Your task to perform on an android device: turn off improve location accuracy Image 0: 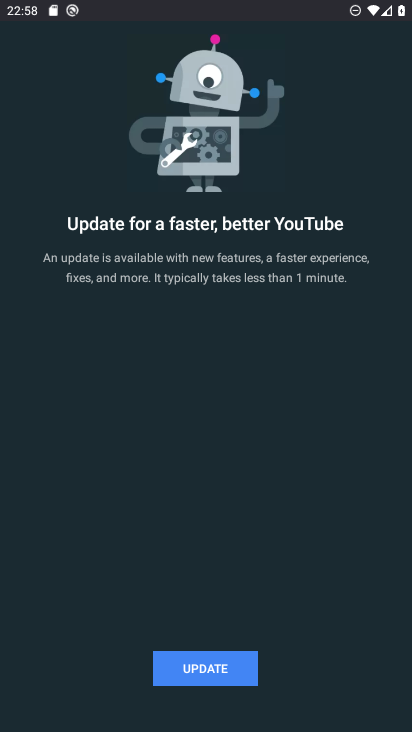
Step 0: press back button
Your task to perform on an android device: turn off improve location accuracy Image 1: 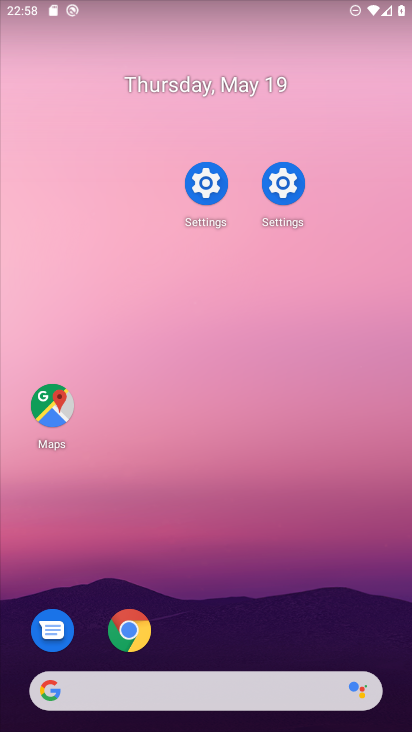
Step 1: drag from (246, 589) to (94, 78)
Your task to perform on an android device: turn off improve location accuracy Image 2: 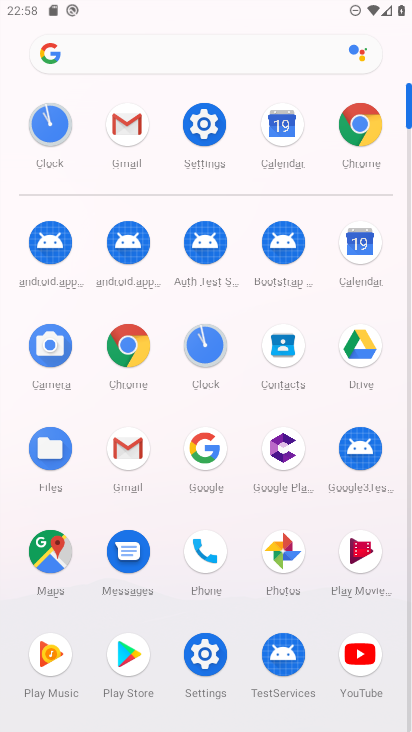
Step 2: click (205, 141)
Your task to perform on an android device: turn off improve location accuracy Image 3: 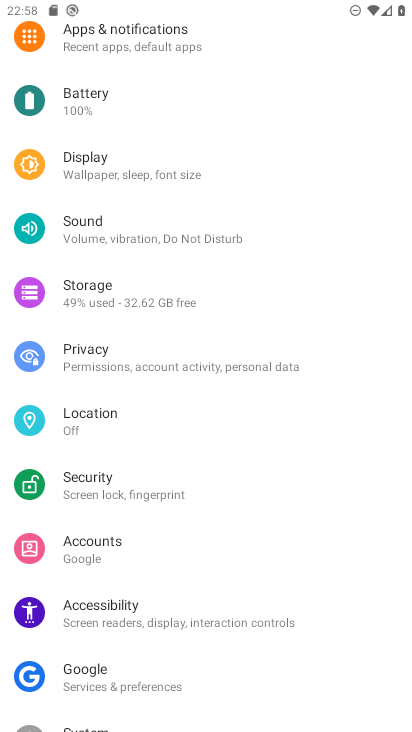
Step 3: click (112, 415)
Your task to perform on an android device: turn off improve location accuracy Image 4: 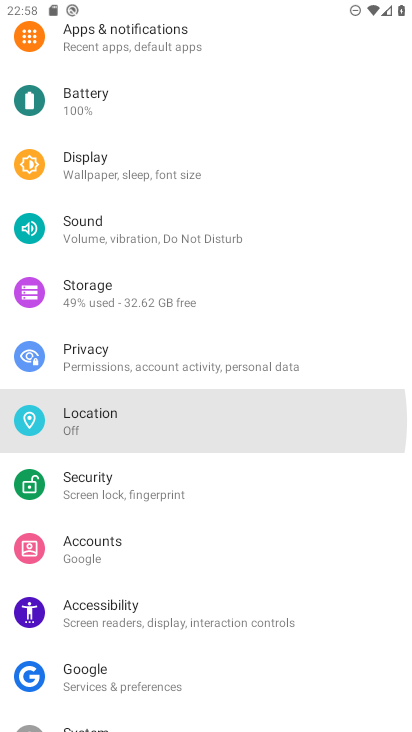
Step 4: click (109, 413)
Your task to perform on an android device: turn off improve location accuracy Image 5: 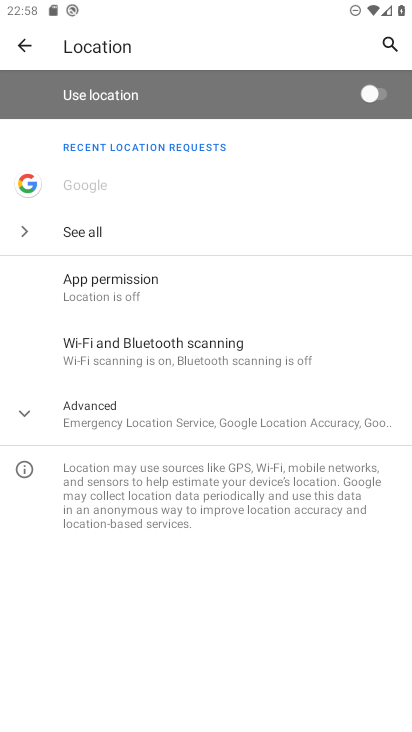
Step 5: click (20, 39)
Your task to perform on an android device: turn off improve location accuracy Image 6: 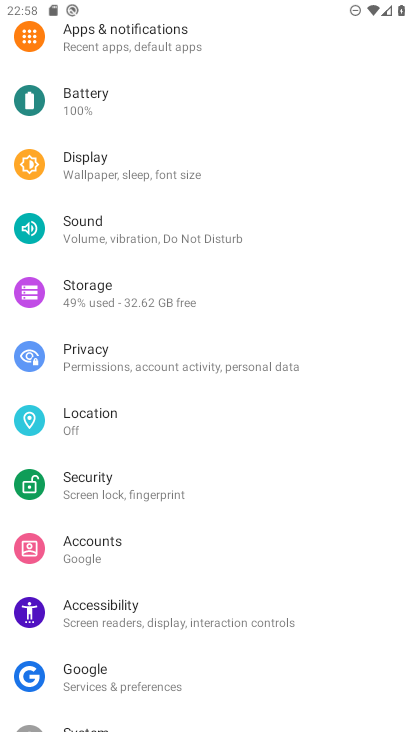
Step 6: press home button
Your task to perform on an android device: turn off improve location accuracy Image 7: 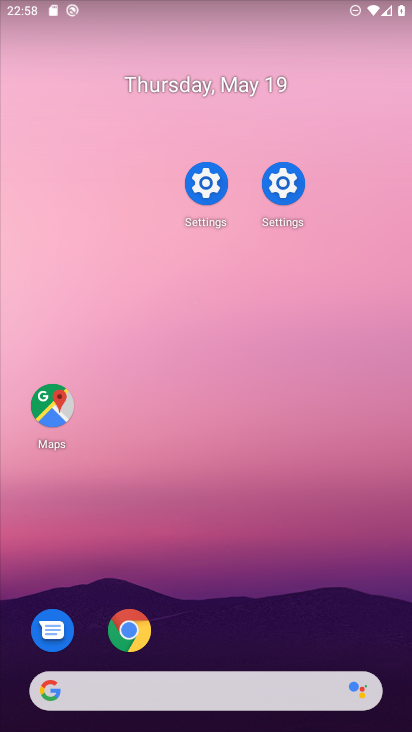
Step 7: drag from (294, 660) to (220, 91)
Your task to perform on an android device: turn off improve location accuracy Image 8: 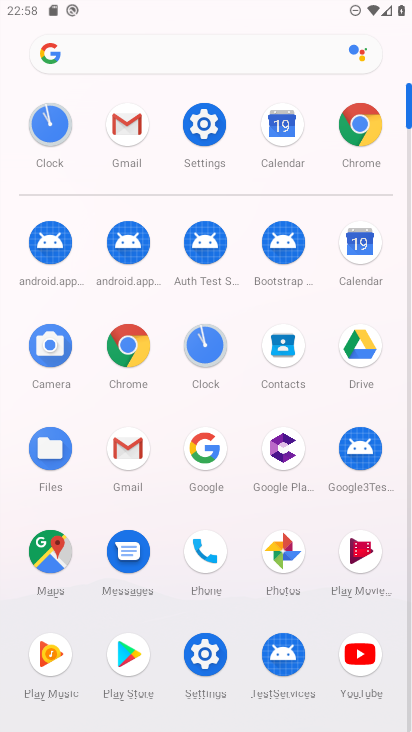
Step 8: click (208, 117)
Your task to perform on an android device: turn off improve location accuracy Image 9: 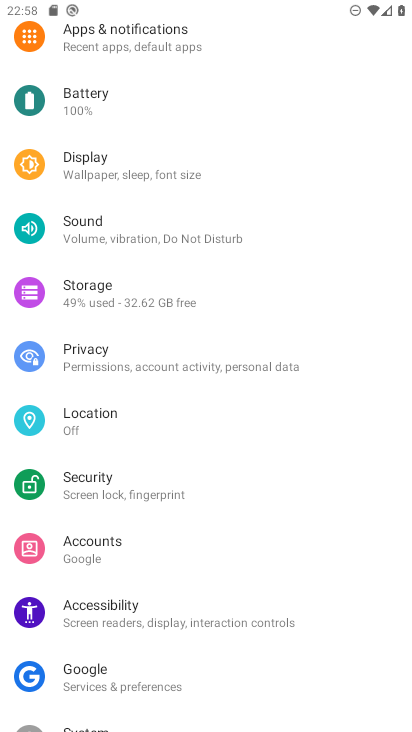
Step 9: click (89, 417)
Your task to perform on an android device: turn off improve location accuracy Image 10: 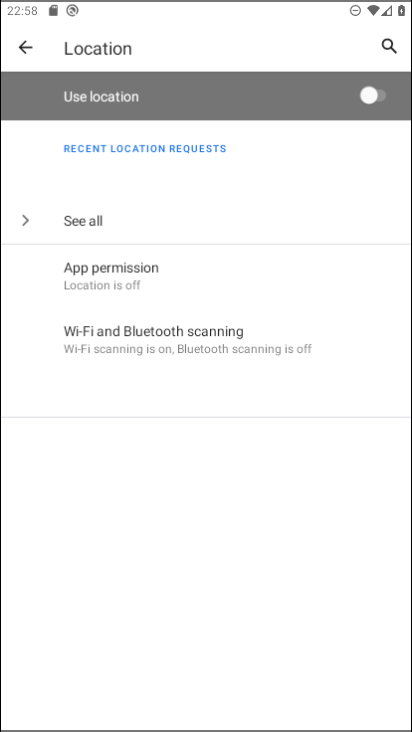
Step 10: click (88, 414)
Your task to perform on an android device: turn off improve location accuracy Image 11: 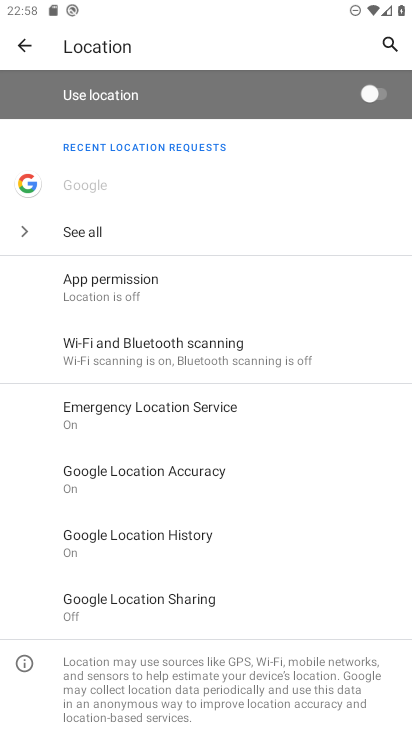
Step 11: task complete